Your task to perform on an android device: Clear the shopping cart on costco.com. Add apple airpods pro to the cart on costco.com Image 0: 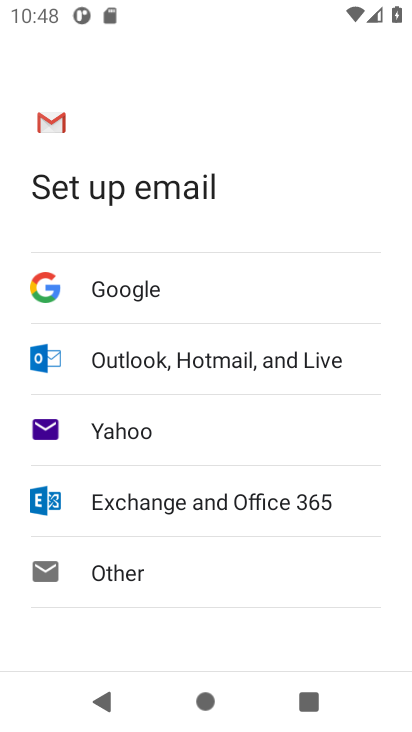
Step 0: press home button
Your task to perform on an android device: Clear the shopping cart on costco.com. Add apple airpods pro to the cart on costco.com Image 1: 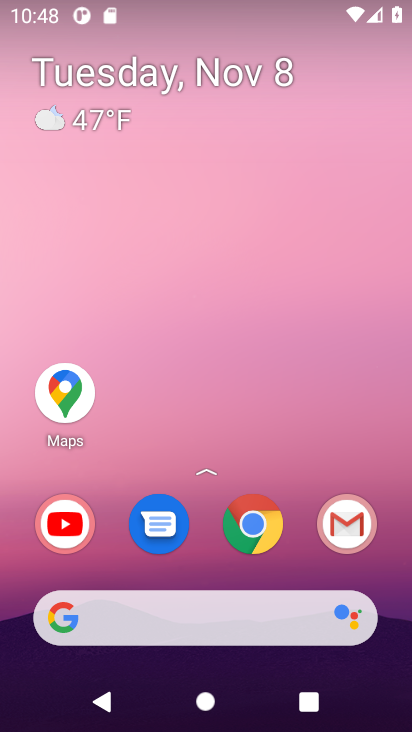
Step 1: click (263, 524)
Your task to perform on an android device: Clear the shopping cart on costco.com. Add apple airpods pro to the cart on costco.com Image 2: 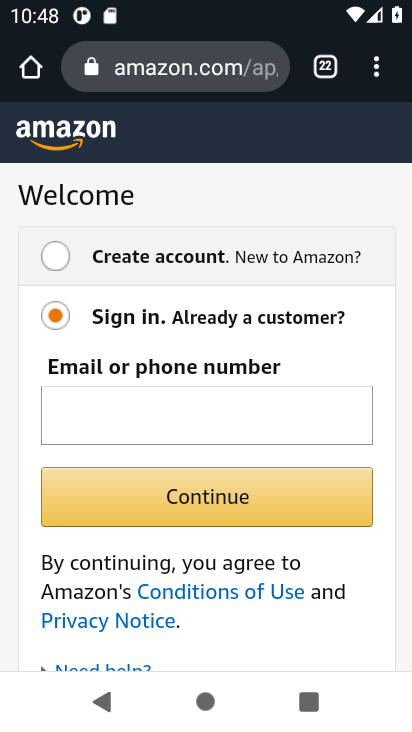
Step 2: click (163, 67)
Your task to perform on an android device: Clear the shopping cart on costco.com. Add apple airpods pro to the cart on costco.com Image 3: 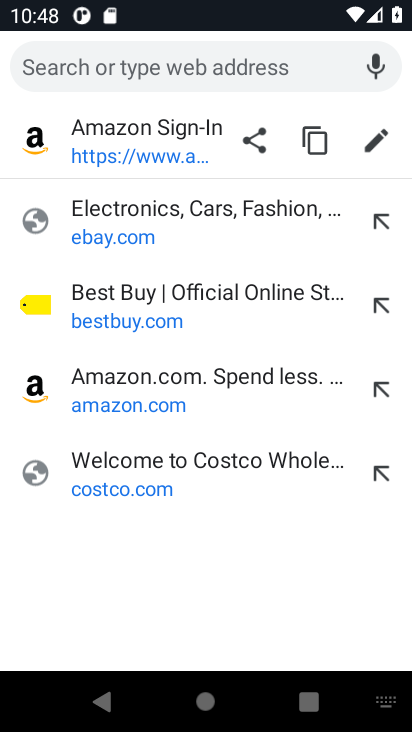
Step 3: click (108, 466)
Your task to perform on an android device: Clear the shopping cart on costco.com. Add apple airpods pro to the cart on costco.com Image 4: 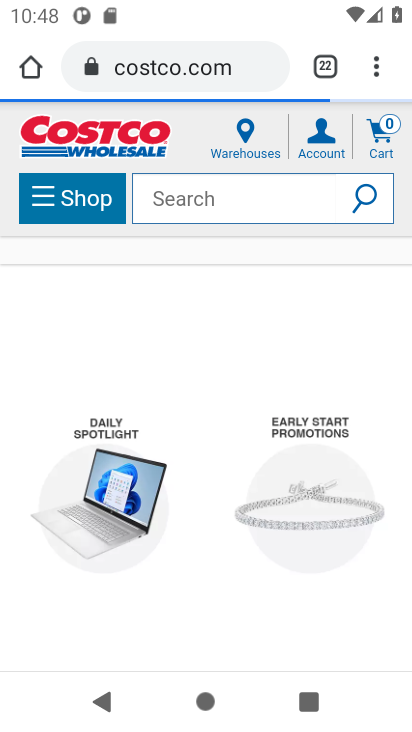
Step 4: click (381, 141)
Your task to perform on an android device: Clear the shopping cart on costco.com. Add apple airpods pro to the cart on costco.com Image 5: 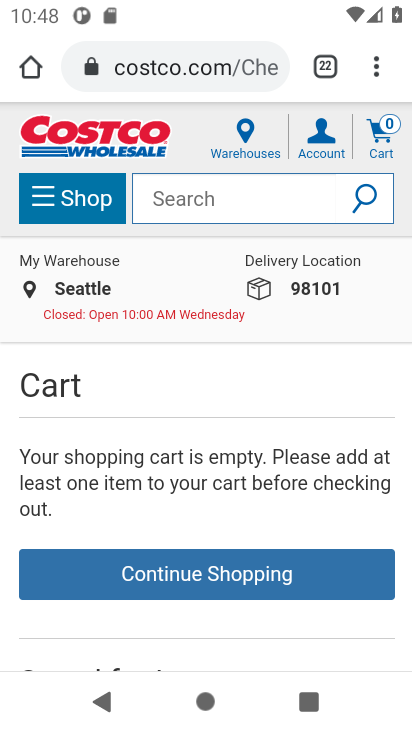
Step 5: click (257, 191)
Your task to perform on an android device: Clear the shopping cart on costco.com. Add apple airpods pro to the cart on costco.com Image 6: 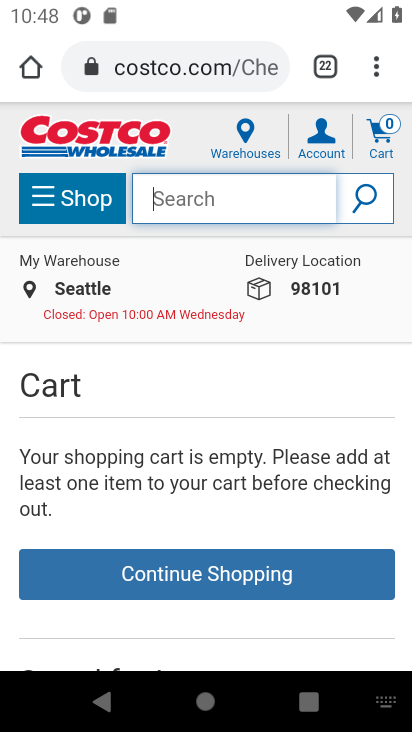
Step 6: type "apple airpods pro"
Your task to perform on an android device: Clear the shopping cart on costco.com. Add apple airpods pro to the cart on costco.com Image 7: 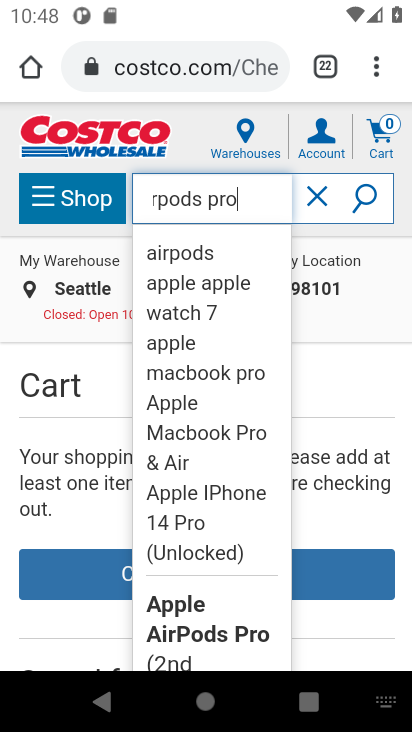
Step 7: click (358, 208)
Your task to perform on an android device: Clear the shopping cart on costco.com. Add apple airpods pro to the cart on costco.com Image 8: 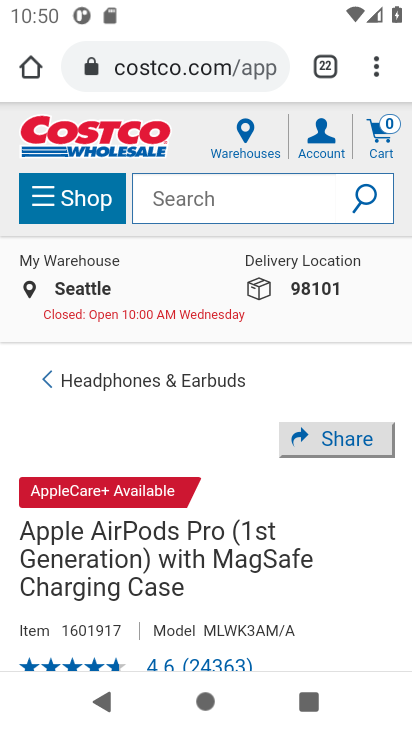
Step 8: click (377, 137)
Your task to perform on an android device: Clear the shopping cart on costco.com. Add apple airpods pro to the cart on costco.com Image 9: 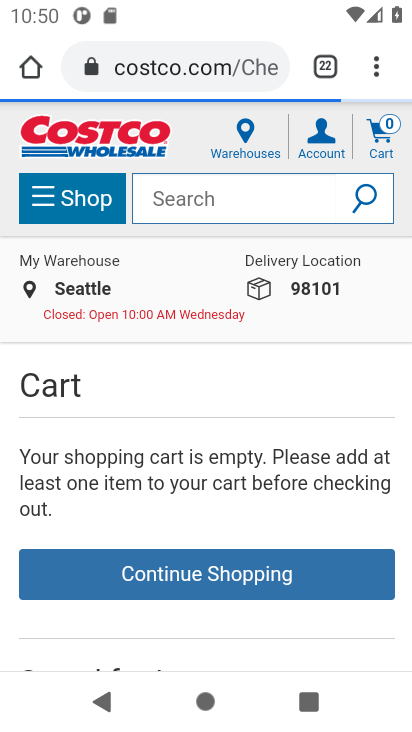
Step 9: click (235, 218)
Your task to perform on an android device: Clear the shopping cart on costco.com. Add apple airpods pro to the cart on costco.com Image 10: 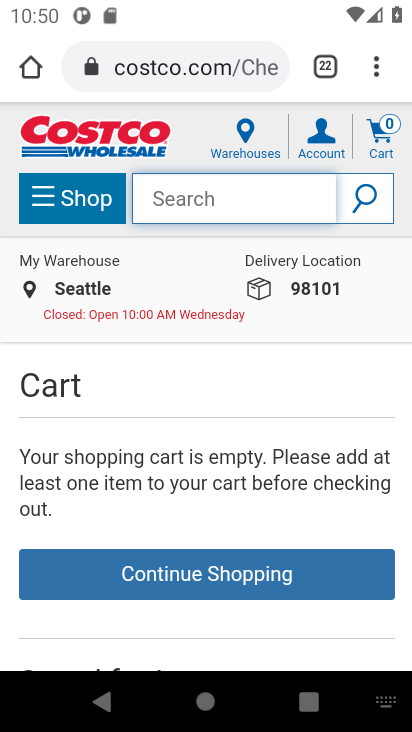
Step 10: type " apple airpods pro"
Your task to perform on an android device: Clear the shopping cart on costco.com. Add apple airpods pro to the cart on costco.com Image 11: 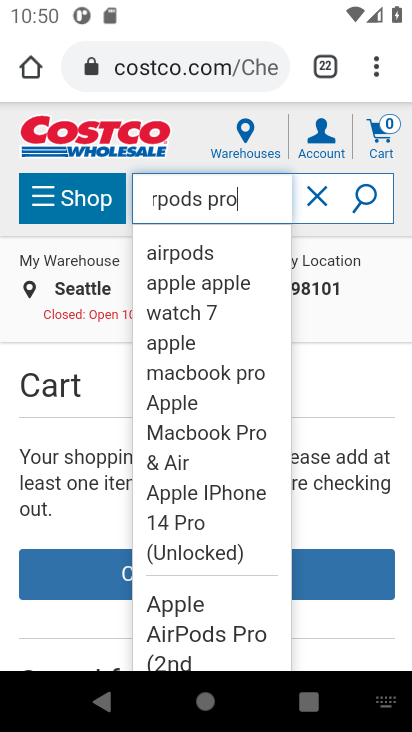
Step 11: click (356, 197)
Your task to perform on an android device: Clear the shopping cart on costco.com. Add apple airpods pro to the cart on costco.com Image 12: 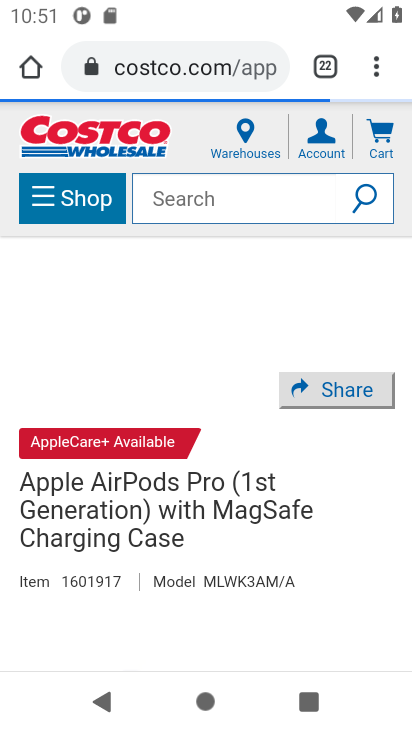
Step 12: task complete